Your task to perform on an android device: toggle improve location accuracy Image 0: 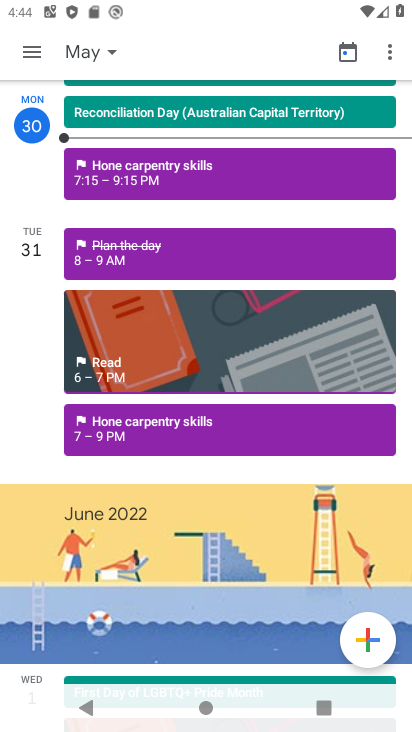
Step 0: press back button
Your task to perform on an android device: toggle improve location accuracy Image 1: 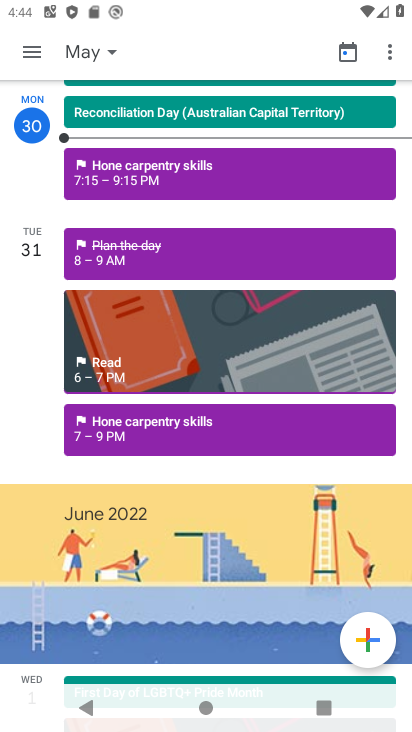
Step 1: press back button
Your task to perform on an android device: toggle improve location accuracy Image 2: 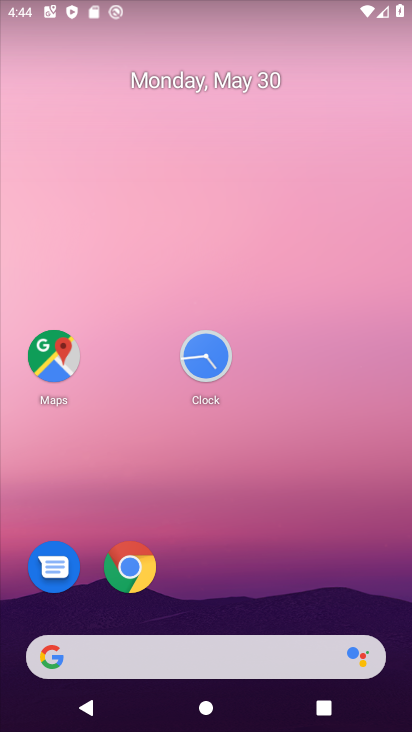
Step 2: drag from (232, 677) to (152, 97)
Your task to perform on an android device: toggle improve location accuracy Image 3: 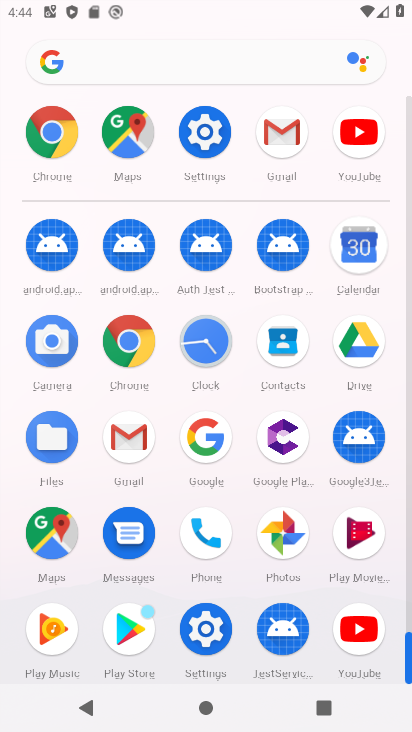
Step 3: click (211, 131)
Your task to perform on an android device: toggle improve location accuracy Image 4: 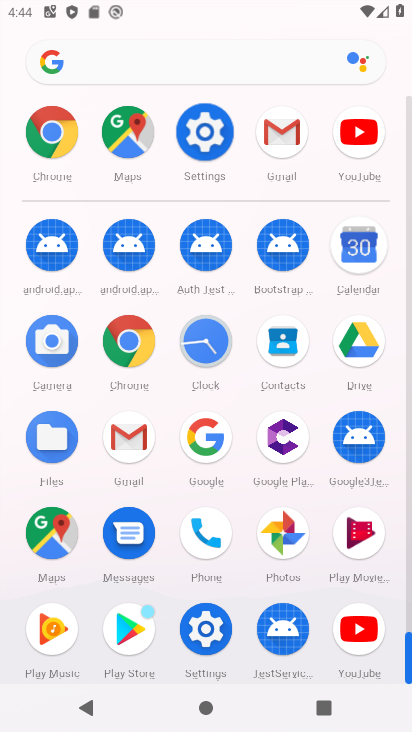
Step 4: click (211, 133)
Your task to perform on an android device: toggle improve location accuracy Image 5: 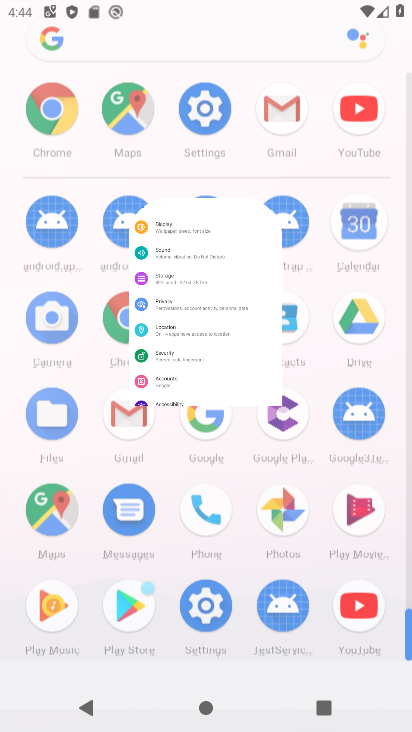
Step 5: click (211, 133)
Your task to perform on an android device: toggle improve location accuracy Image 6: 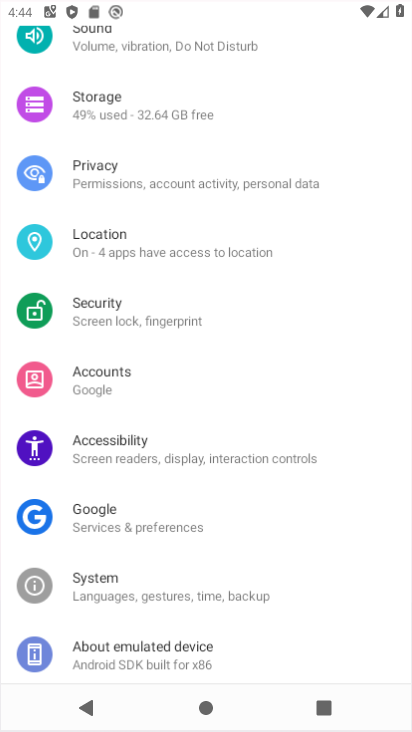
Step 6: click (211, 135)
Your task to perform on an android device: toggle improve location accuracy Image 7: 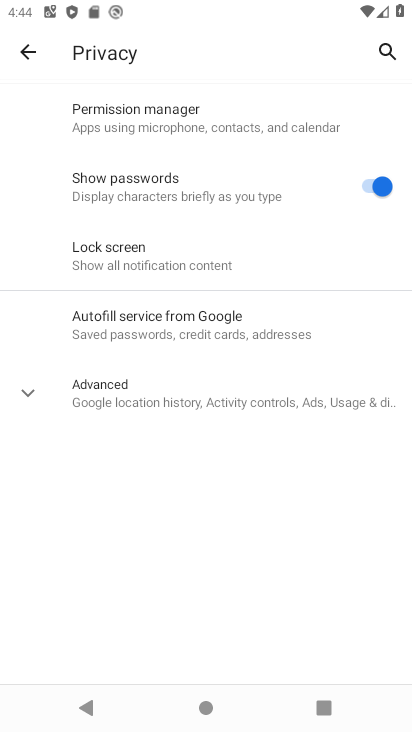
Step 7: click (30, 46)
Your task to perform on an android device: toggle improve location accuracy Image 8: 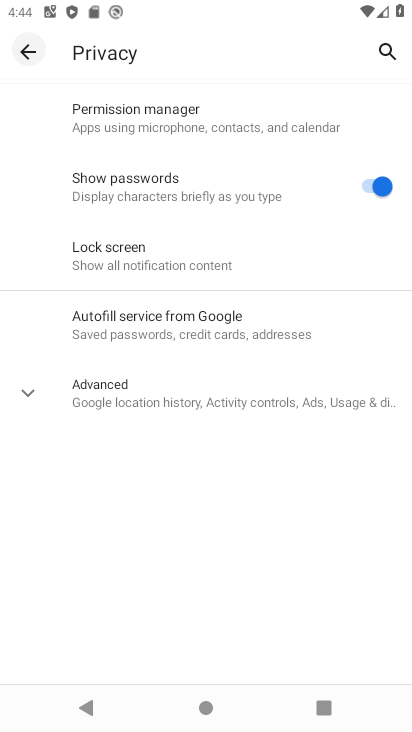
Step 8: click (23, 52)
Your task to perform on an android device: toggle improve location accuracy Image 9: 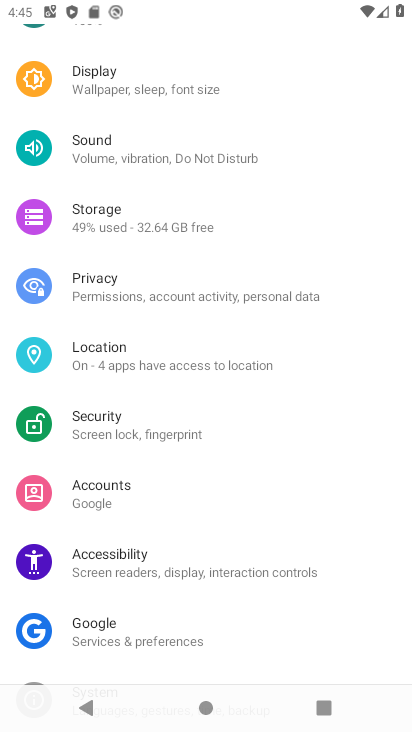
Step 9: click (126, 362)
Your task to perform on an android device: toggle improve location accuracy Image 10: 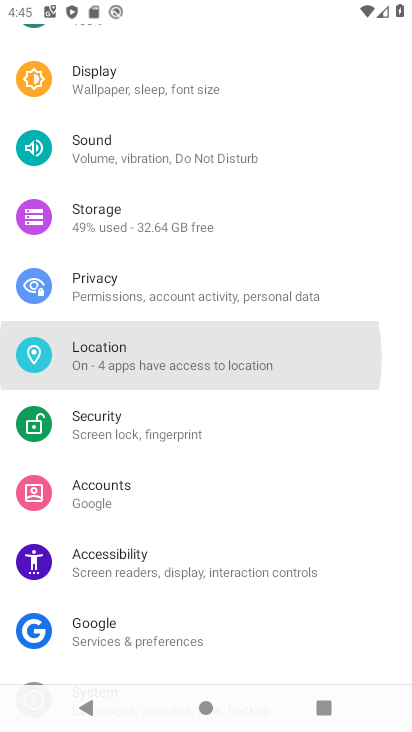
Step 10: click (126, 363)
Your task to perform on an android device: toggle improve location accuracy Image 11: 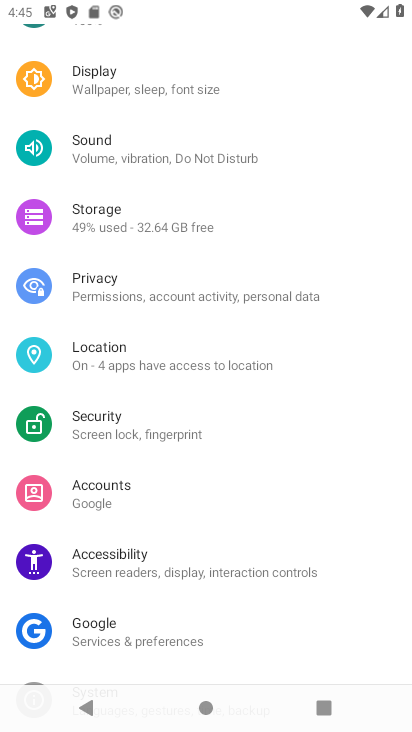
Step 11: click (126, 363)
Your task to perform on an android device: toggle improve location accuracy Image 12: 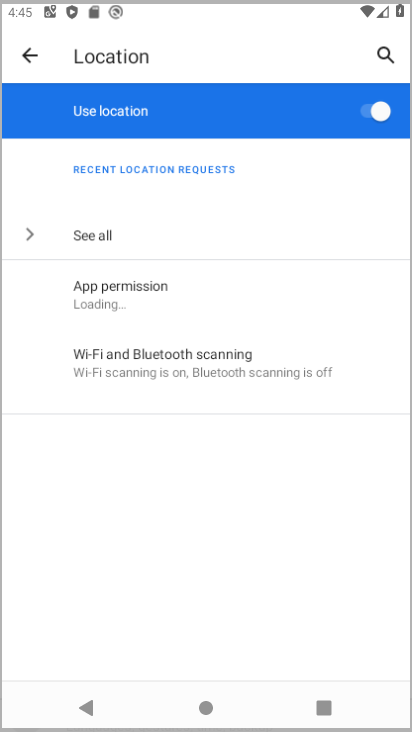
Step 12: click (126, 363)
Your task to perform on an android device: toggle improve location accuracy Image 13: 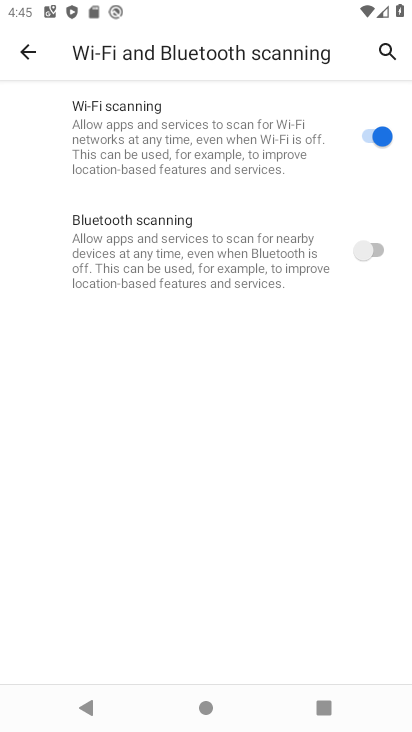
Step 13: click (365, 251)
Your task to perform on an android device: toggle improve location accuracy Image 14: 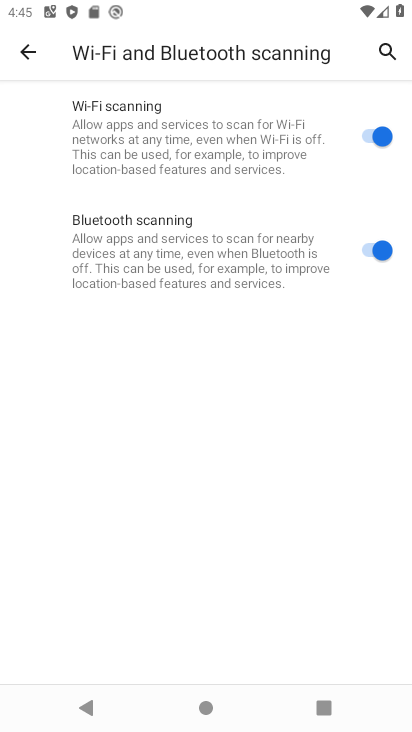
Step 14: click (33, 52)
Your task to perform on an android device: toggle improve location accuracy Image 15: 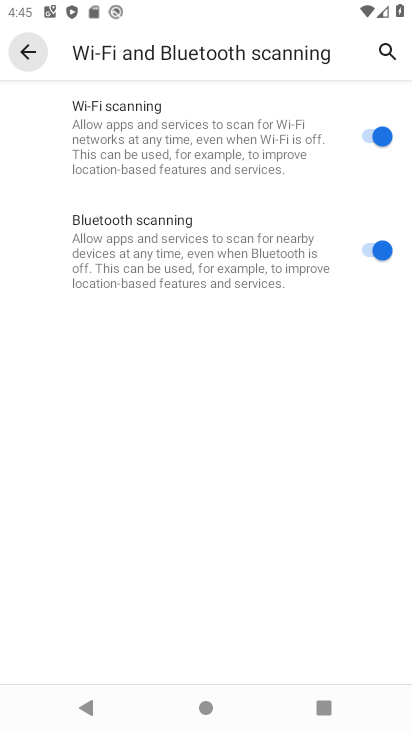
Step 15: click (26, 46)
Your task to perform on an android device: toggle improve location accuracy Image 16: 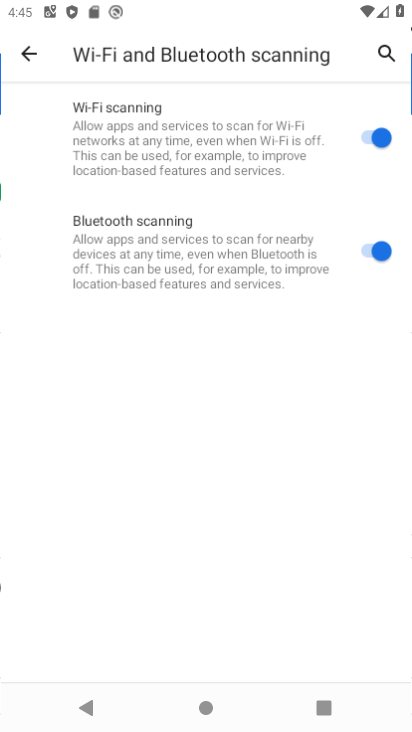
Step 16: click (24, 52)
Your task to perform on an android device: toggle improve location accuracy Image 17: 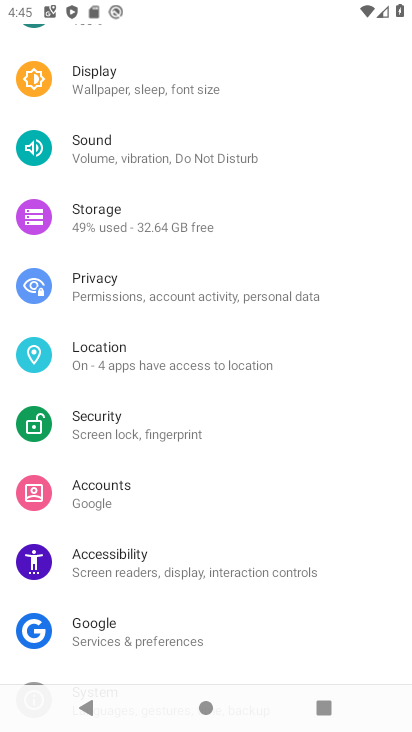
Step 17: click (114, 364)
Your task to perform on an android device: toggle improve location accuracy Image 18: 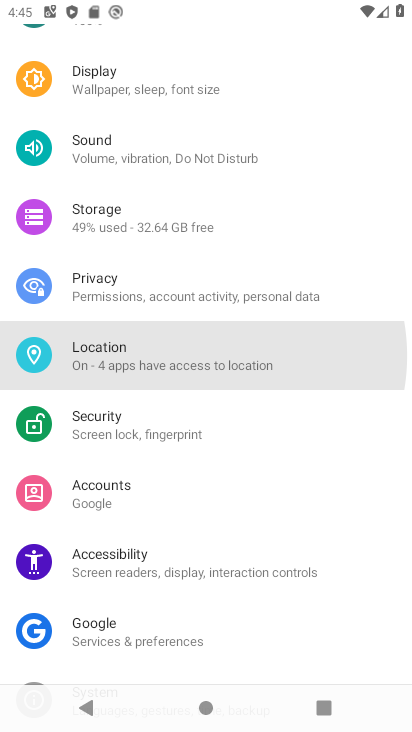
Step 18: click (114, 363)
Your task to perform on an android device: toggle improve location accuracy Image 19: 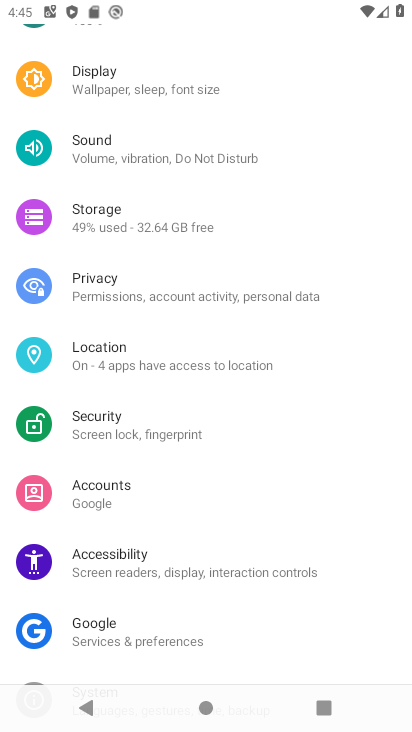
Step 19: click (115, 362)
Your task to perform on an android device: toggle improve location accuracy Image 20: 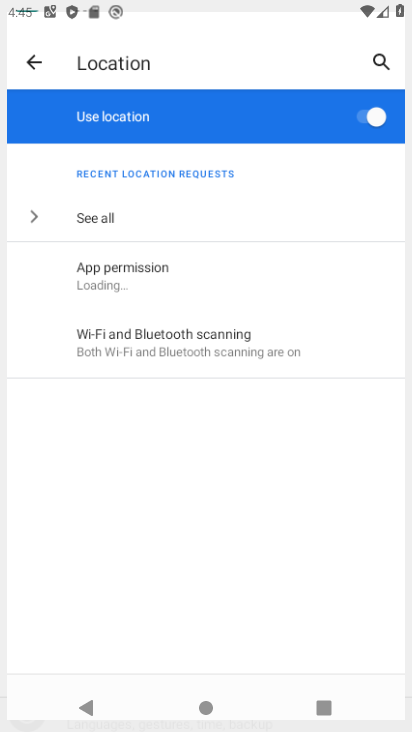
Step 20: click (115, 362)
Your task to perform on an android device: toggle improve location accuracy Image 21: 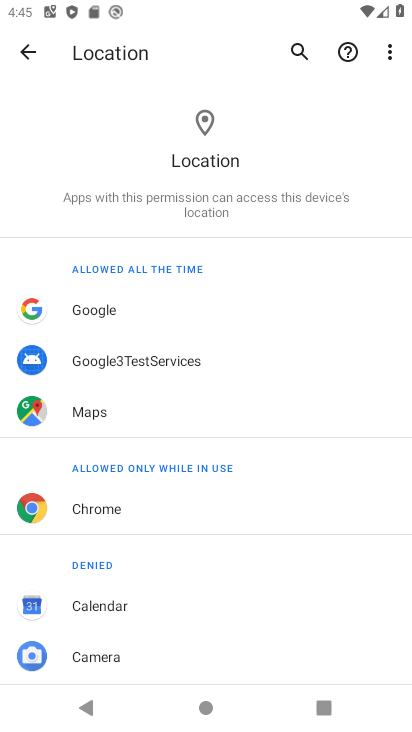
Step 21: click (21, 43)
Your task to perform on an android device: toggle improve location accuracy Image 22: 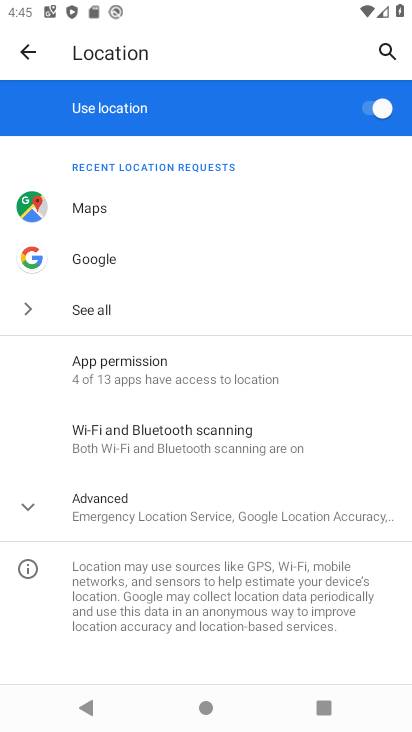
Step 22: click (105, 492)
Your task to perform on an android device: toggle improve location accuracy Image 23: 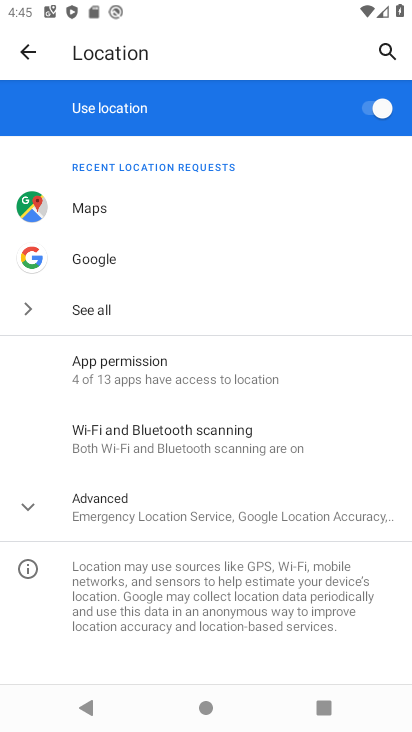
Step 23: click (105, 492)
Your task to perform on an android device: toggle improve location accuracy Image 24: 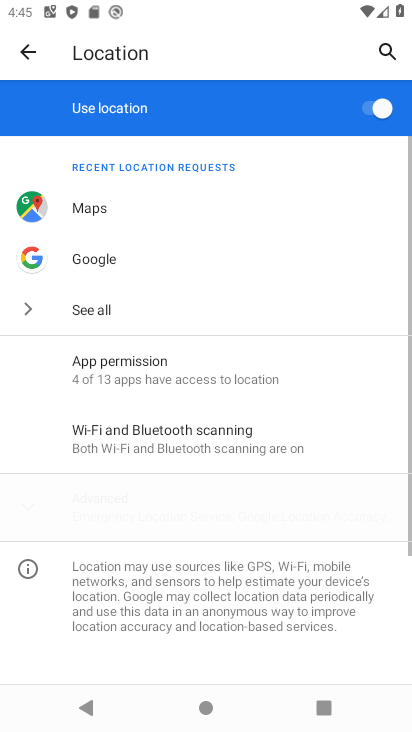
Step 24: click (104, 494)
Your task to perform on an android device: toggle improve location accuracy Image 25: 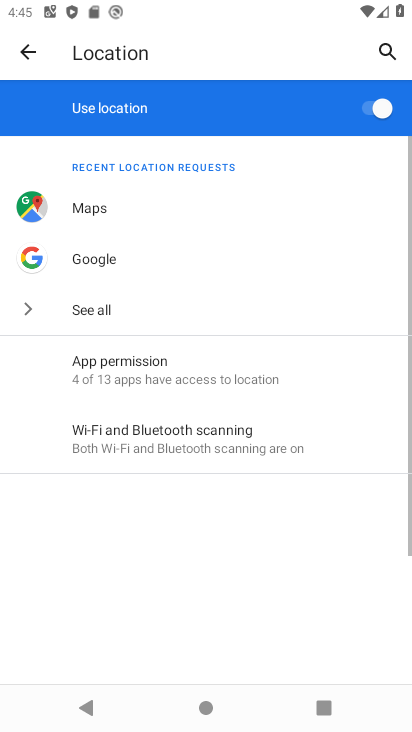
Step 25: click (104, 494)
Your task to perform on an android device: toggle improve location accuracy Image 26: 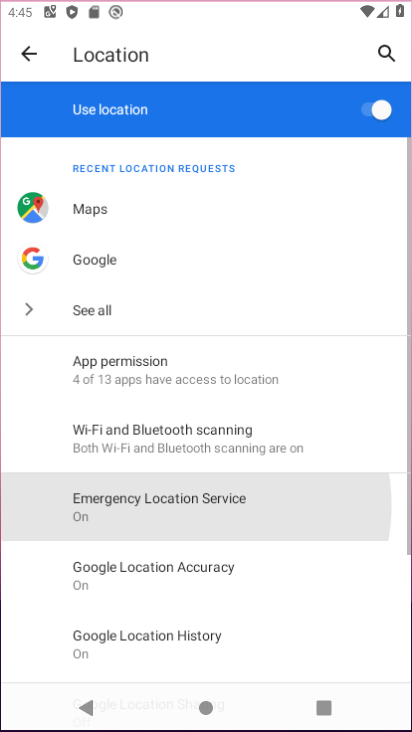
Step 26: click (104, 495)
Your task to perform on an android device: toggle improve location accuracy Image 27: 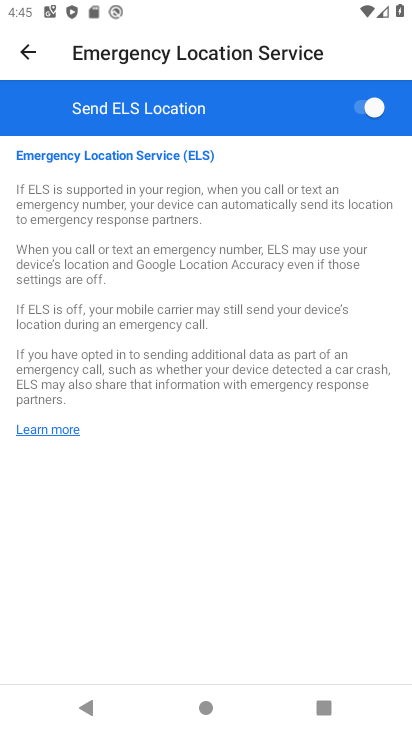
Step 27: click (23, 52)
Your task to perform on an android device: toggle improve location accuracy Image 28: 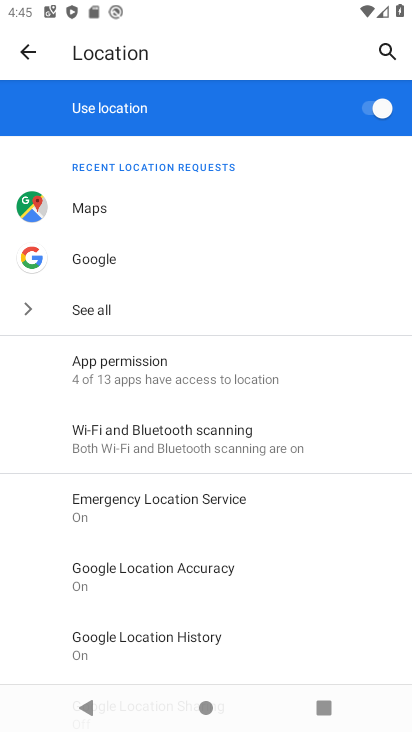
Step 28: click (176, 574)
Your task to perform on an android device: toggle improve location accuracy Image 29: 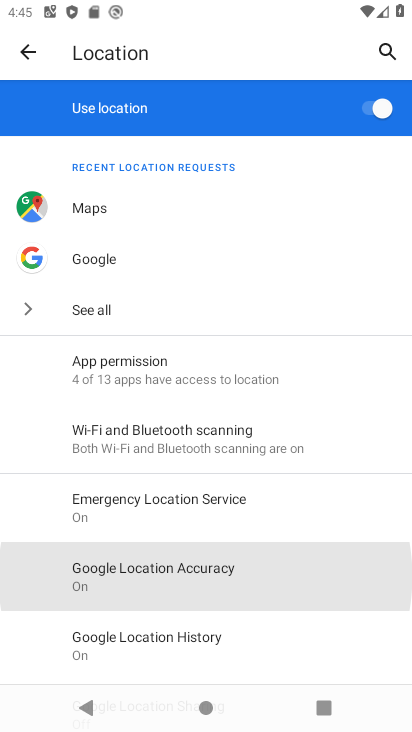
Step 29: click (175, 568)
Your task to perform on an android device: toggle improve location accuracy Image 30: 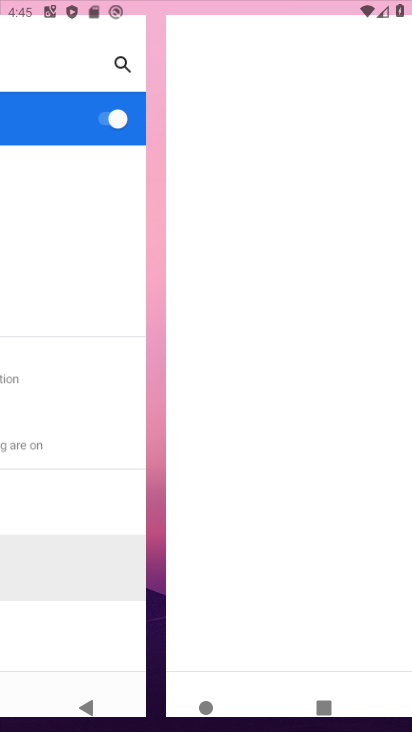
Step 30: click (176, 568)
Your task to perform on an android device: toggle improve location accuracy Image 31: 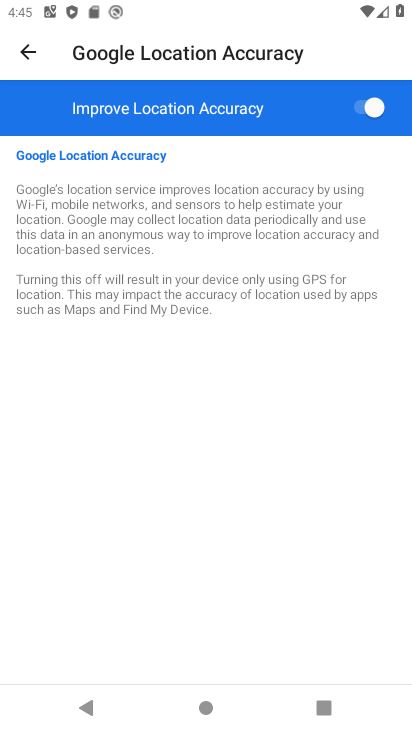
Step 31: click (371, 100)
Your task to perform on an android device: toggle improve location accuracy Image 32: 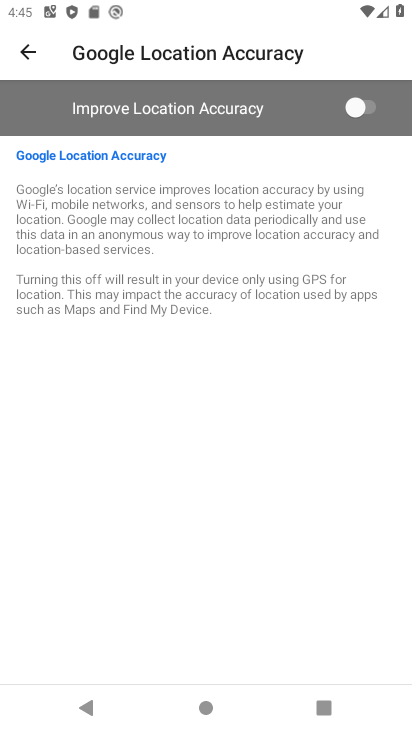
Step 32: task complete